Your task to perform on an android device: turn pop-ups off in chrome Image 0: 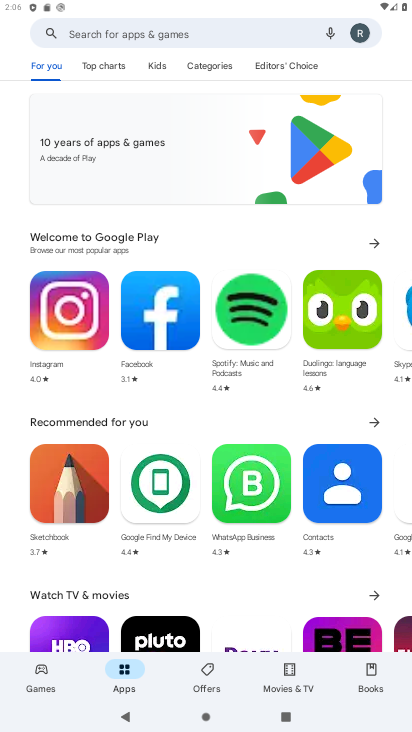
Step 0: press home button
Your task to perform on an android device: turn pop-ups off in chrome Image 1: 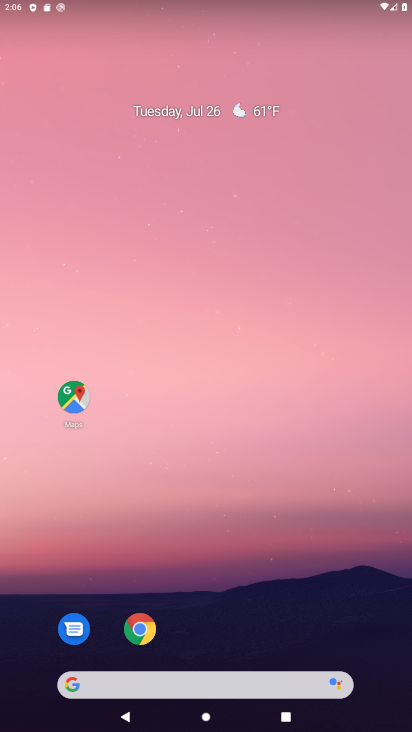
Step 1: click (140, 630)
Your task to perform on an android device: turn pop-ups off in chrome Image 2: 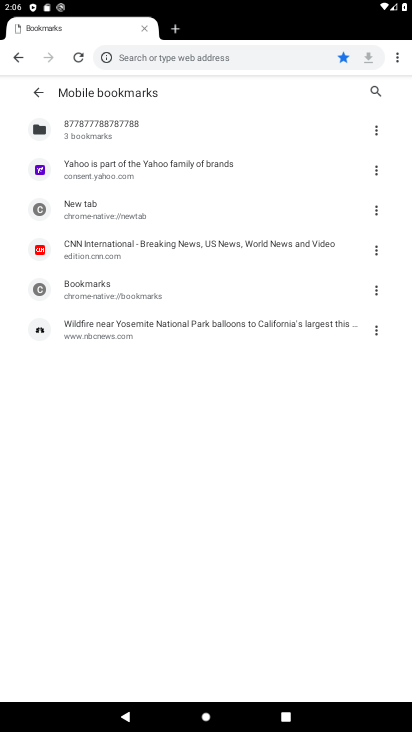
Step 2: click (394, 60)
Your task to perform on an android device: turn pop-ups off in chrome Image 3: 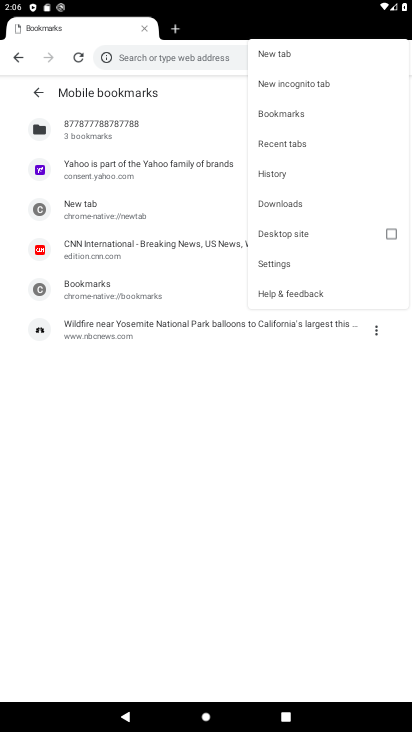
Step 3: click (281, 256)
Your task to perform on an android device: turn pop-ups off in chrome Image 4: 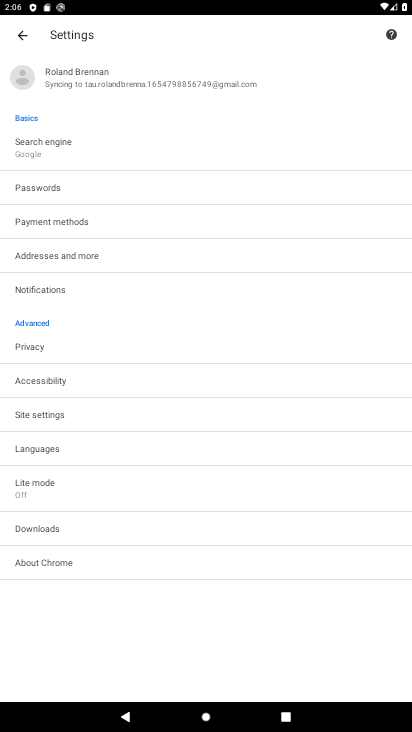
Step 4: click (45, 414)
Your task to perform on an android device: turn pop-ups off in chrome Image 5: 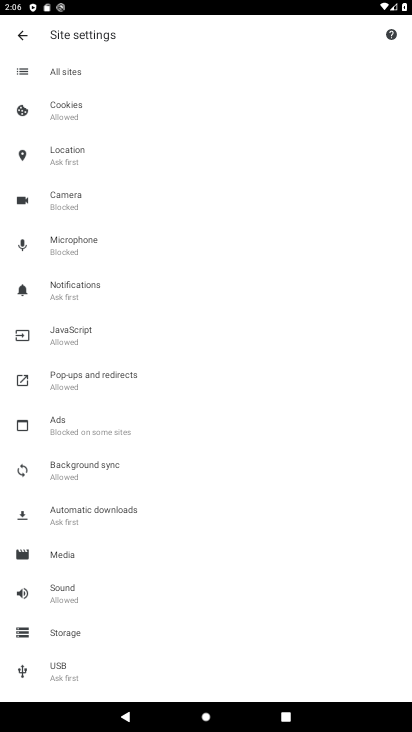
Step 5: click (77, 374)
Your task to perform on an android device: turn pop-ups off in chrome Image 6: 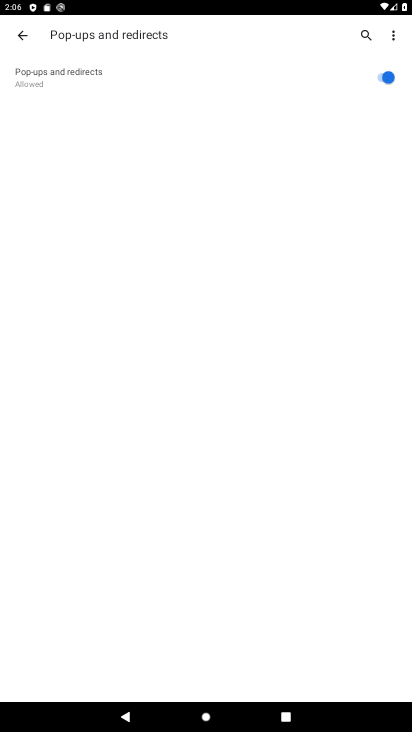
Step 6: click (381, 79)
Your task to perform on an android device: turn pop-ups off in chrome Image 7: 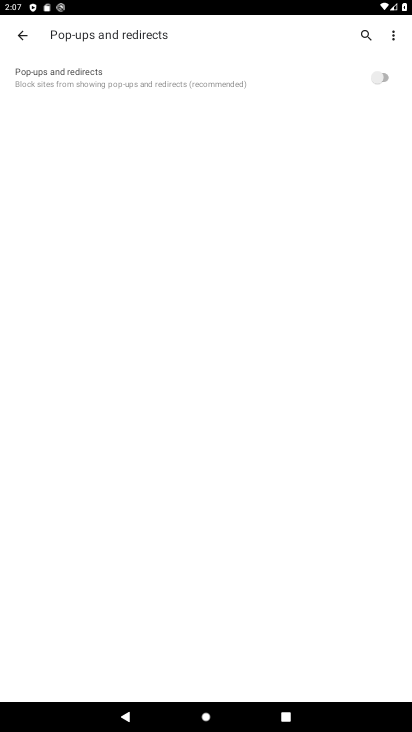
Step 7: task complete